Your task to perform on an android device: Go to Google Image 0: 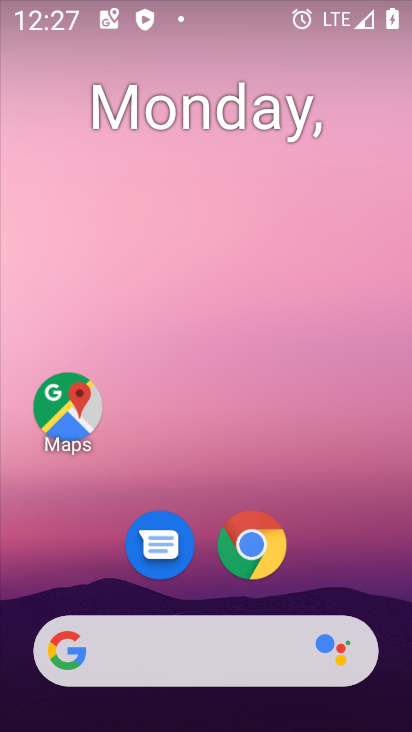
Step 0: drag from (380, 566) to (398, 197)
Your task to perform on an android device: Go to Google Image 1: 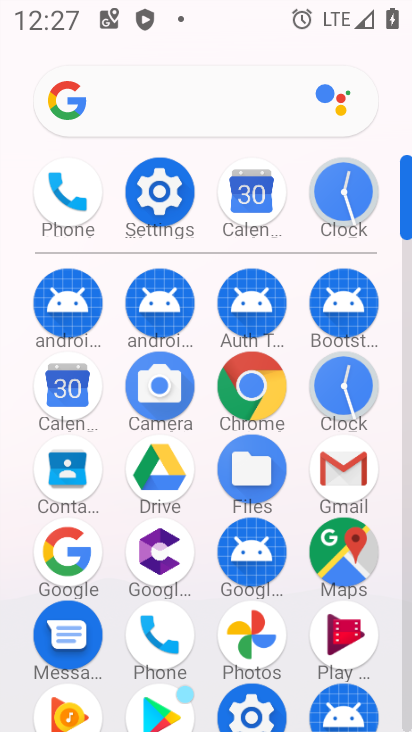
Step 1: drag from (383, 591) to (402, 308)
Your task to perform on an android device: Go to Google Image 2: 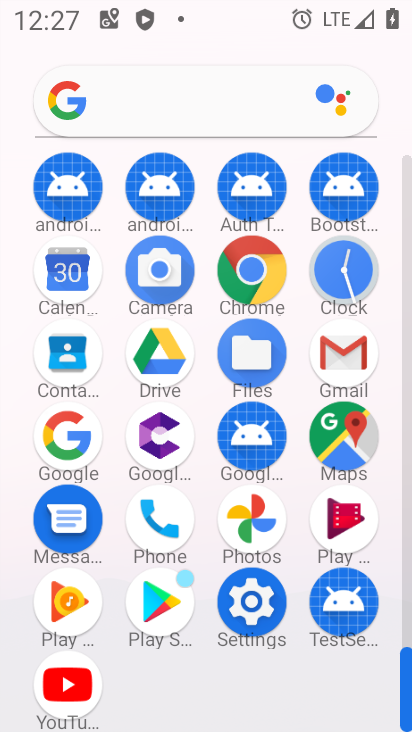
Step 2: click (90, 455)
Your task to perform on an android device: Go to Google Image 3: 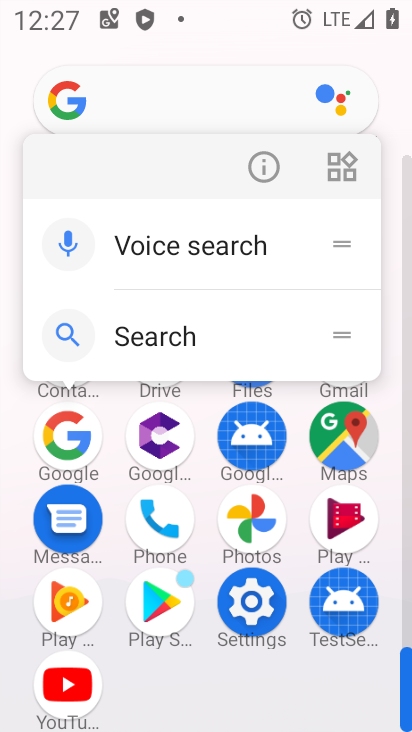
Step 3: click (81, 449)
Your task to perform on an android device: Go to Google Image 4: 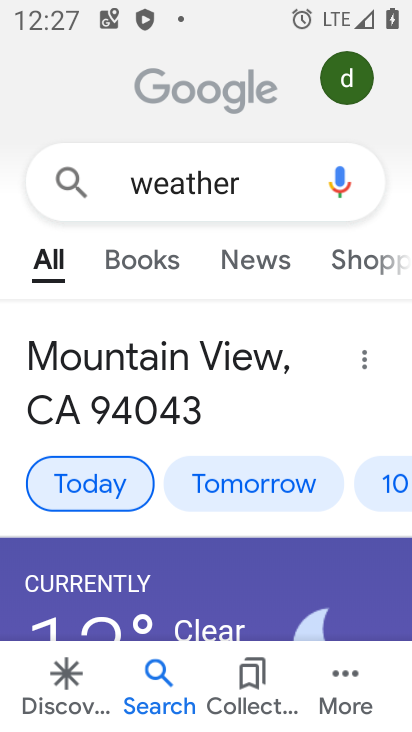
Step 4: task complete